Your task to perform on an android device: Find coffee shops on Maps Image 0: 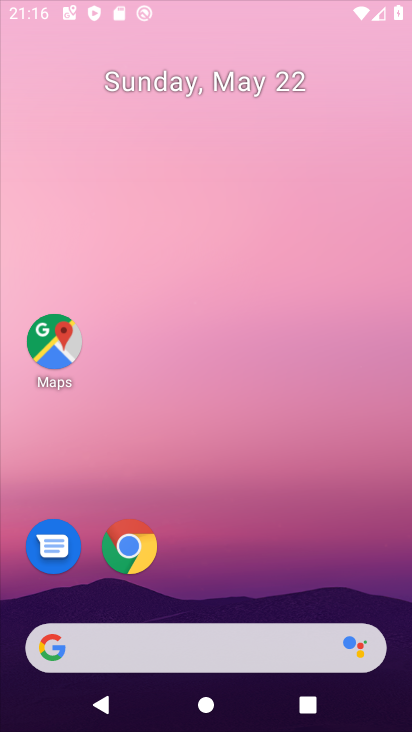
Step 0: click (303, 135)
Your task to perform on an android device: Find coffee shops on Maps Image 1: 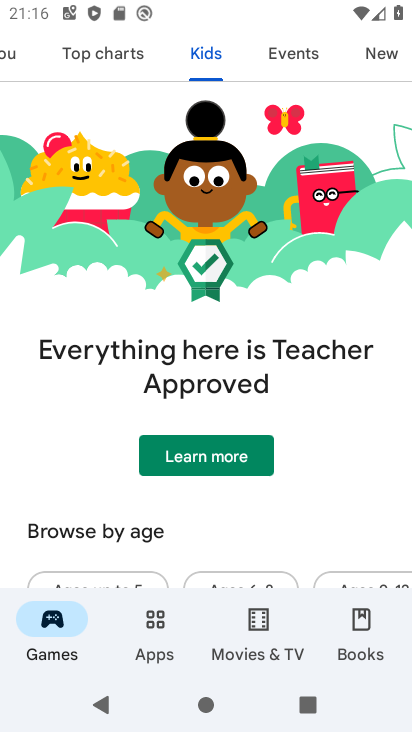
Step 1: press home button
Your task to perform on an android device: Find coffee shops on Maps Image 2: 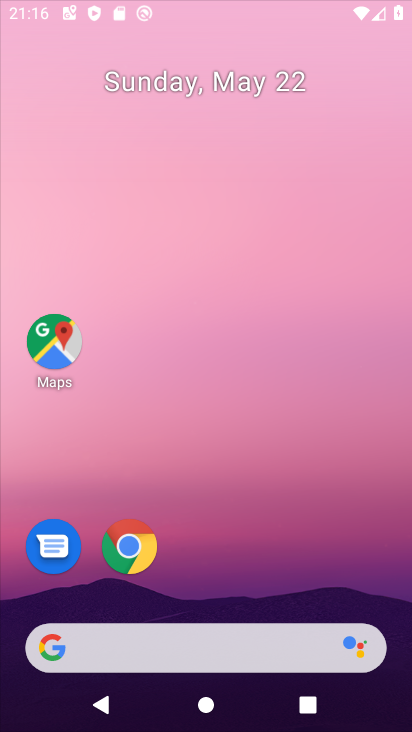
Step 2: drag from (213, 557) to (312, 18)
Your task to perform on an android device: Find coffee shops on Maps Image 3: 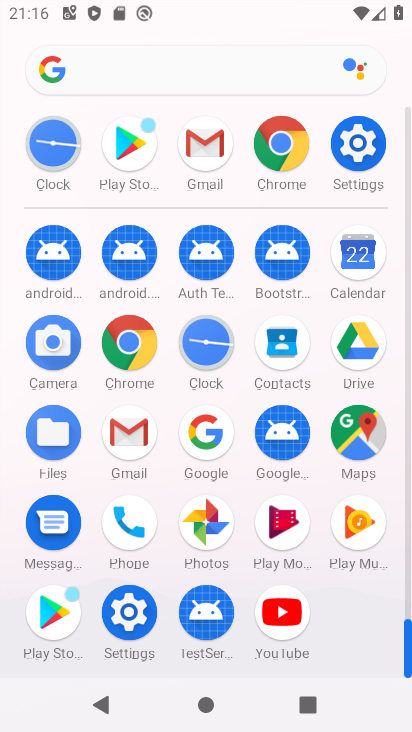
Step 3: click (354, 430)
Your task to perform on an android device: Find coffee shops on Maps Image 4: 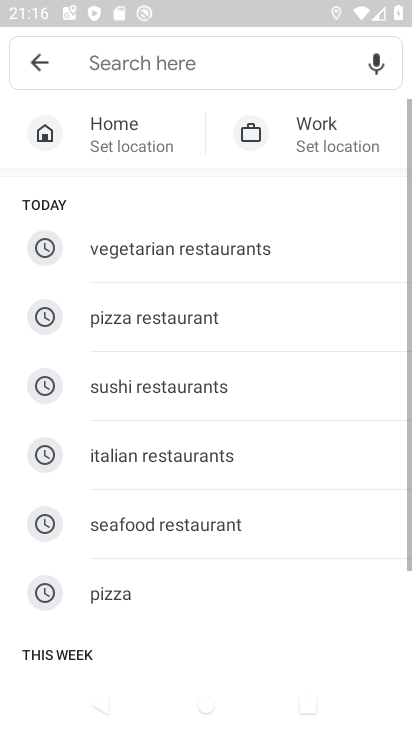
Step 4: click (154, 54)
Your task to perform on an android device: Find coffee shops on Maps Image 5: 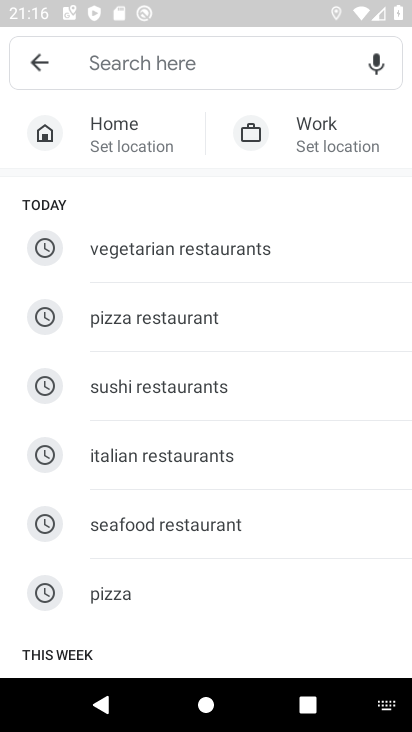
Step 5: type ""
Your task to perform on an android device: Find coffee shops on Maps Image 6: 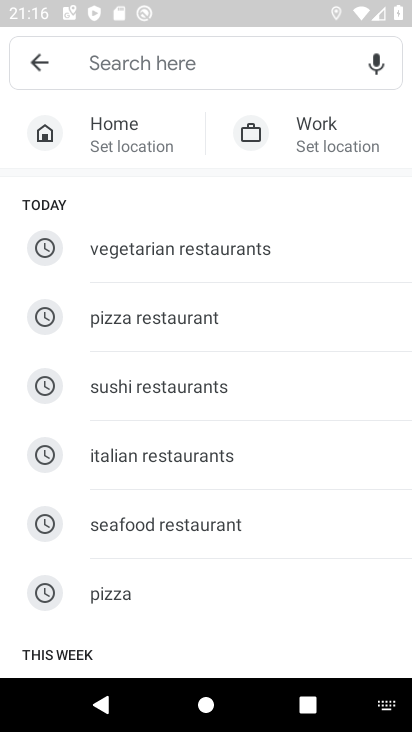
Step 6: type "coffee"
Your task to perform on an android device: Find coffee shops on Maps Image 7: 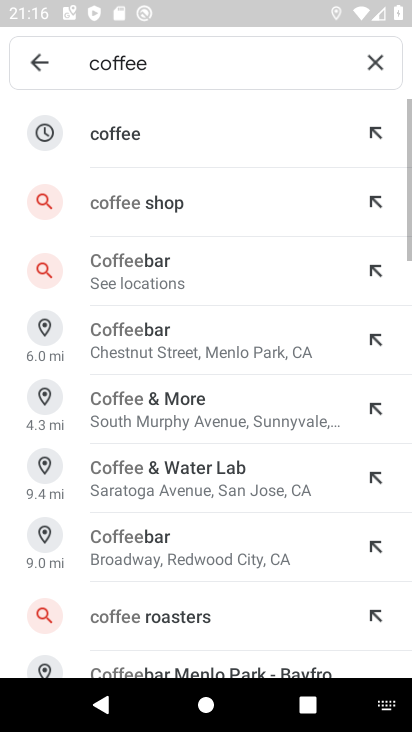
Step 7: click (188, 108)
Your task to perform on an android device: Find coffee shops on Maps Image 8: 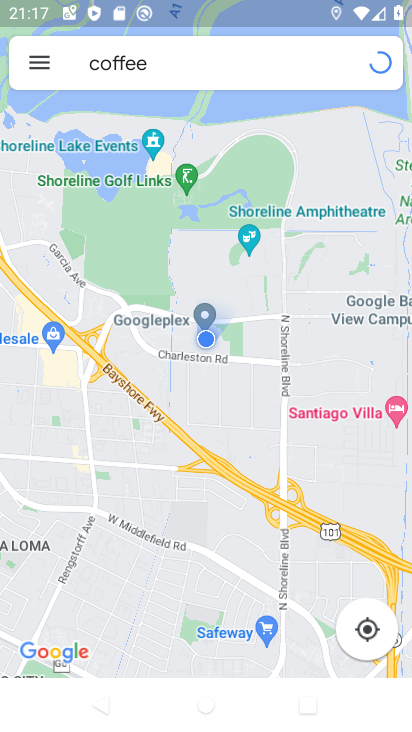
Step 8: drag from (212, 590) to (254, 179)
Your task to perform on an android device: Find coffee shops on Maps Image 9: 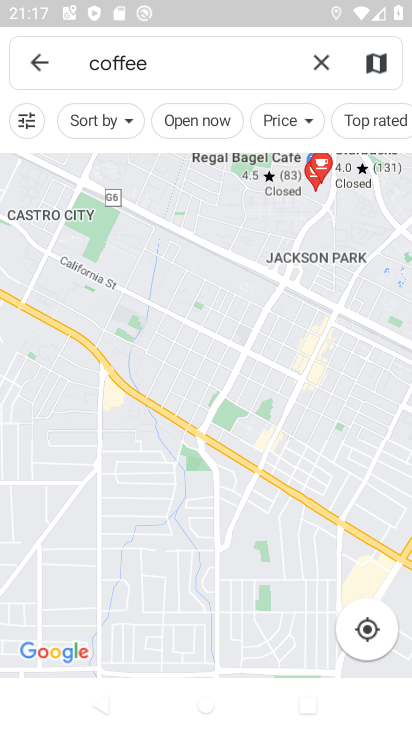
Step 9: drag from (229, 450) to (252, 232)
Your task to perform on an android device: Find coffee shops on Maps Image 10: 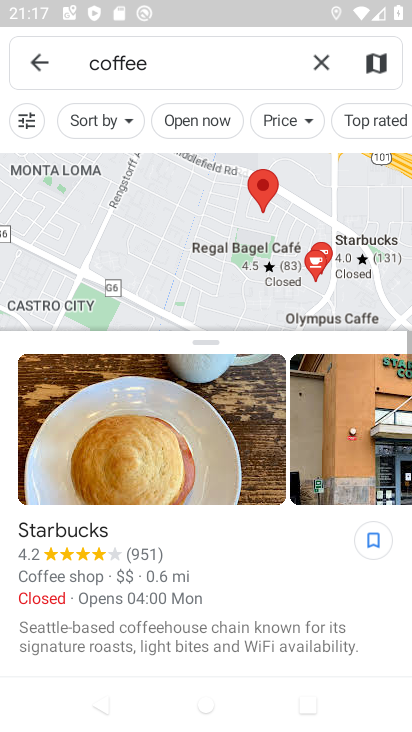
Step 10: drag from (236, 190) to (108, 651)
Your task to perform on an android device: Find coffee shops on Maps Image 11: 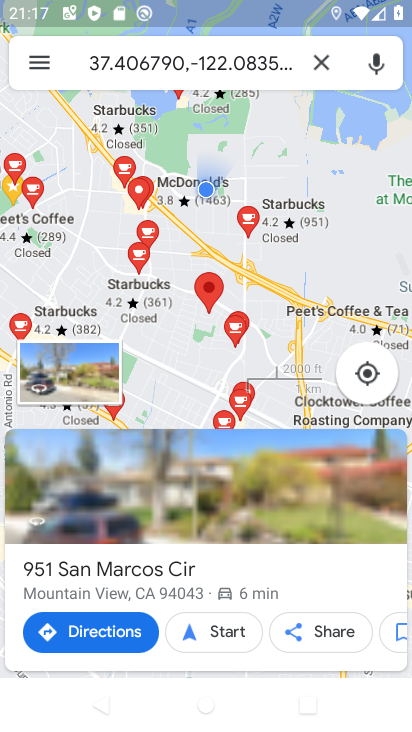
Step 11: click (323, 57)
Your task to perform on an android device: Find coffee shops on Maps Image 12: 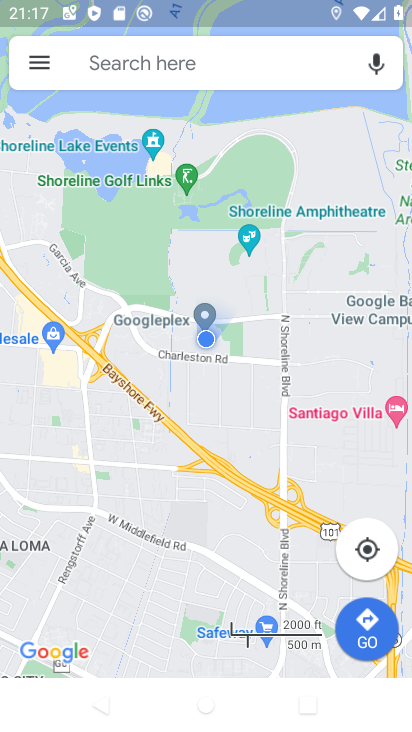
Step 12: click (239, 54)
Your task to perform on an android device: Find coffee shops on Maps Image 13: 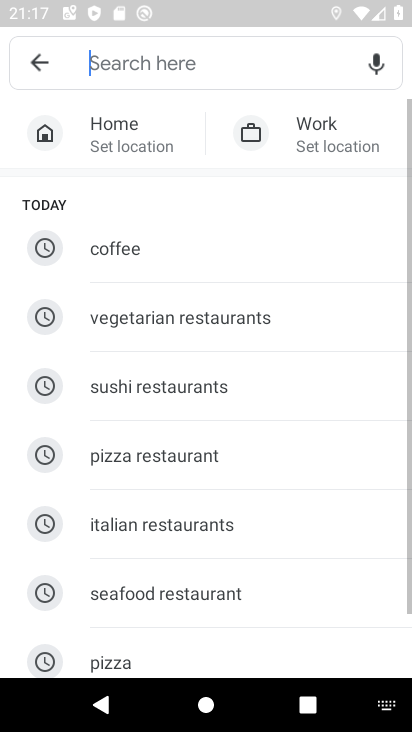
Step 13: click (163, 244)
Your task to perform on an android device: Find coffee shops on Maps Image 14: 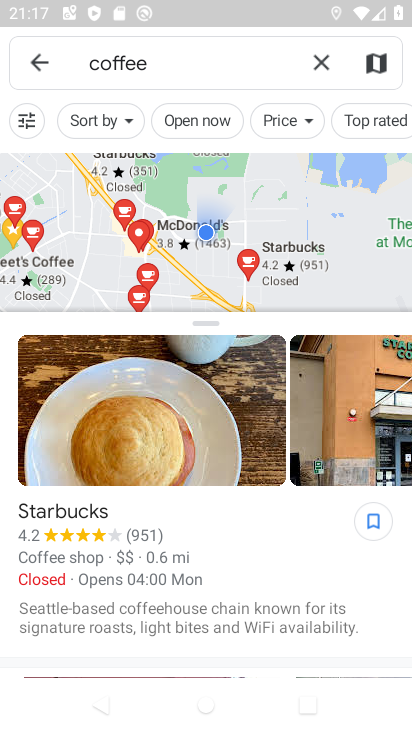
Step 14: task complete